Your task to perform on an android device: Go to notification settings Image 0: 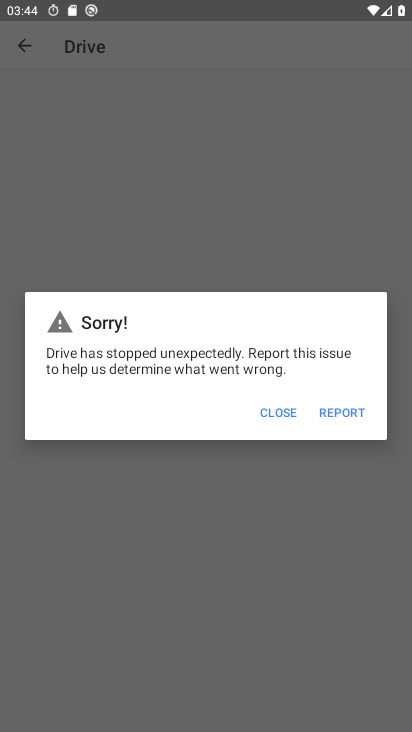
Step 0: drag from (358, 253) to (358, 174)
Your task to perform on an android device: Go to notification settings Image 1: 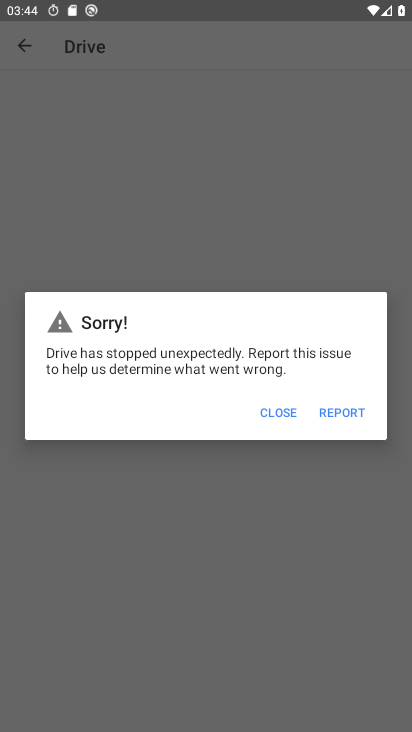
Step 1: press home button
Your task to perform on an android device: Go to notification settings Image 2: 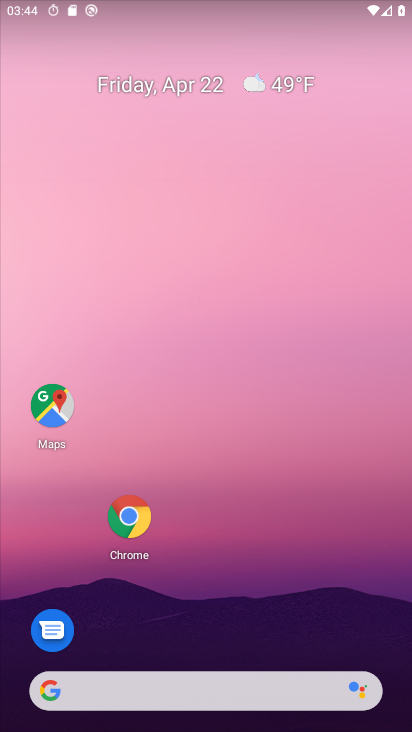
Step 2: drag from (355, 311) to (352, 198)
Your task to perform on an android device: Go to notification settings Image 3: 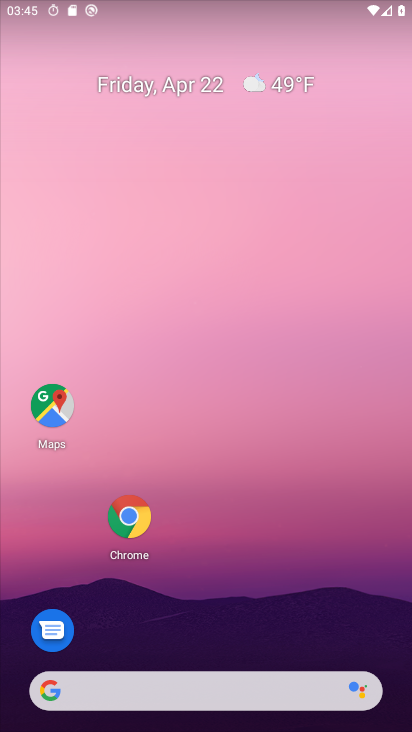
Step 3: click (368, 314)
Your task to perform on an android device: Go to notification settings Image 4: 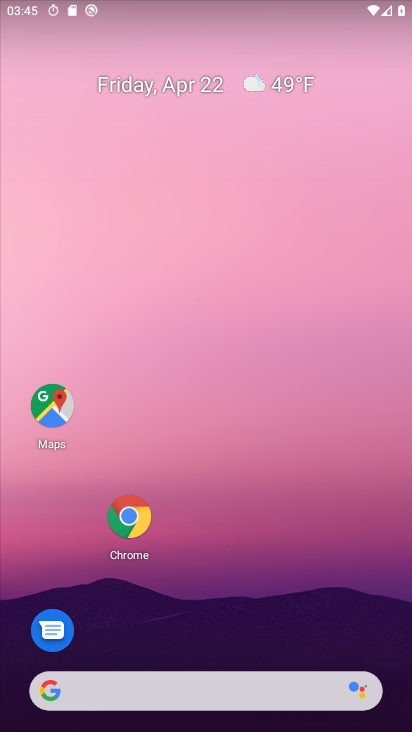
Step 4: drag from (372, 303) to (365, 155)
Your task to perform on an android device: Go to notification settings Image 5: 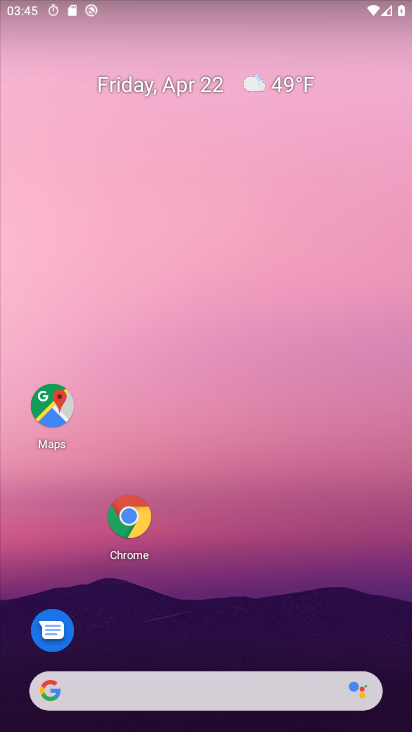
Step 5: drag from (375, 608) to (373, 195)
Your task to perform on an android device: Go to notification settings Image 6: 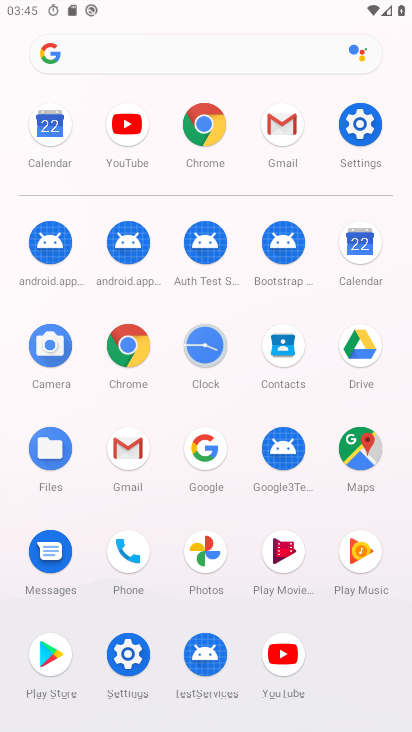
Step 6: click (349, 123)
Your task to perform on an android device: Go to notification settings Image 7: 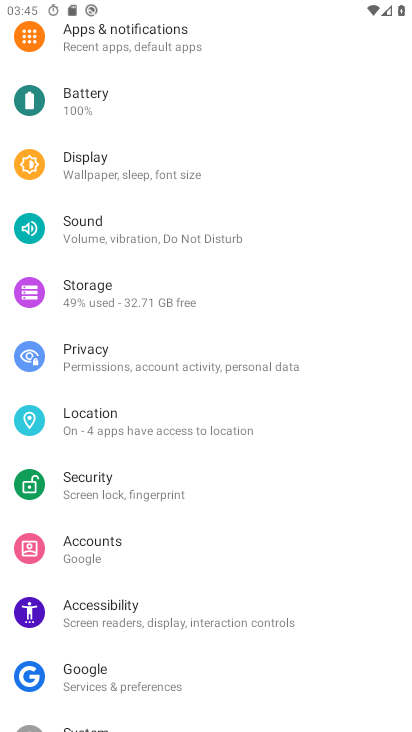
Step 7: click (114, 41)
Your task to perform on an android device: Go to notification settings Image 8: 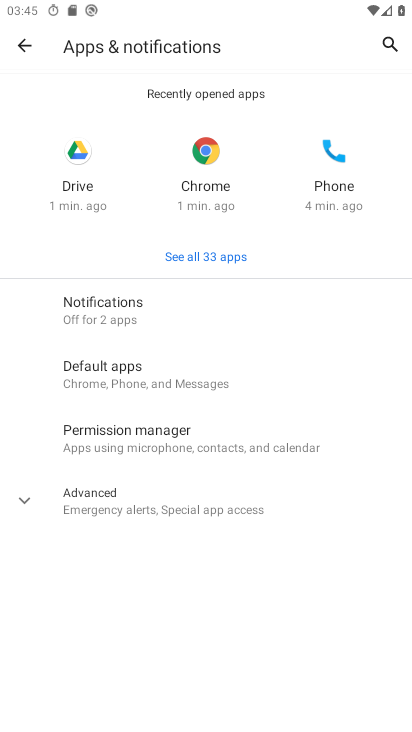
Step 8: click (106, 308)
Your task to perform on an android device: Go to notification settings Image 9: 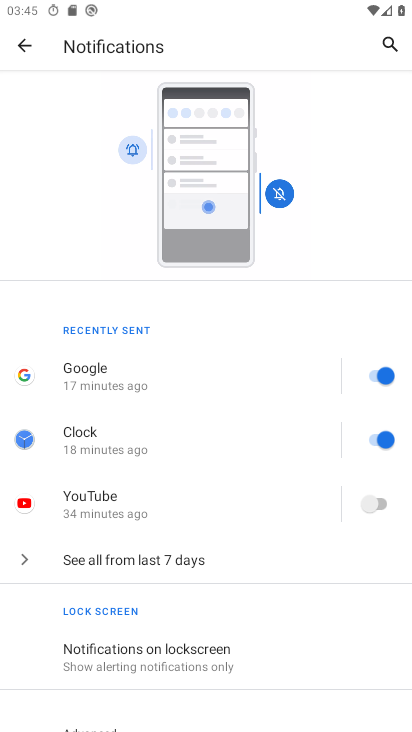
Step 9: drag from (288, 653) to (289, 314)
Your task to perform on an android device: Go to notification settings Image 10: 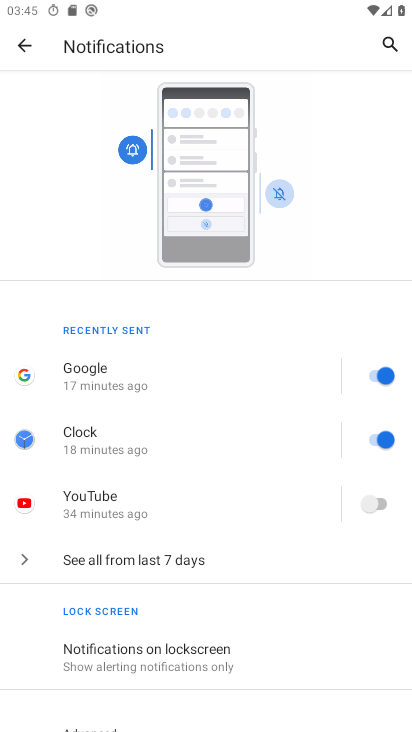
Step 10: drag from (277, 401) to (279, 306)
Your task to perform on an android device: Go to notification settings Image 11: 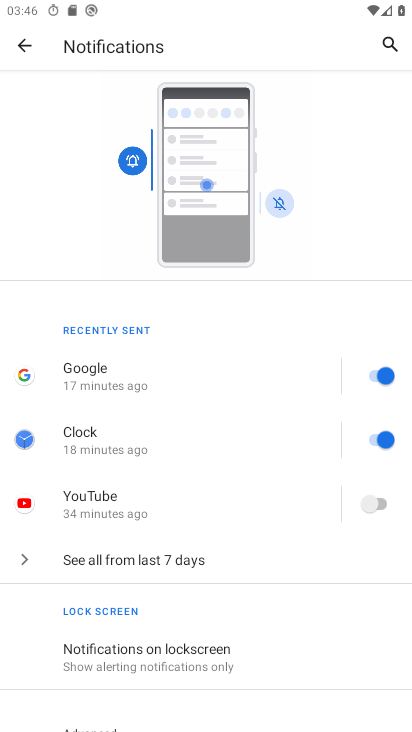
Step 11: drag from (284, 436) to (287, 394)
Your task to perform on an android device: Go to notification settings Image 12: 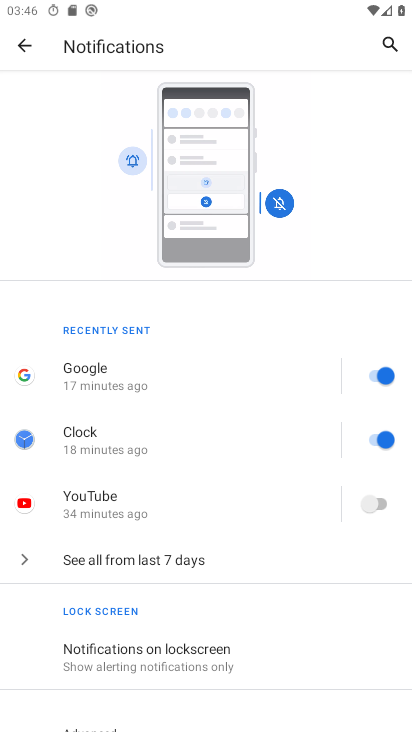
Step 12: drag from (261, 660) to (278, 454)
Your task to perform on an android device: Go to notification settings Image 13: 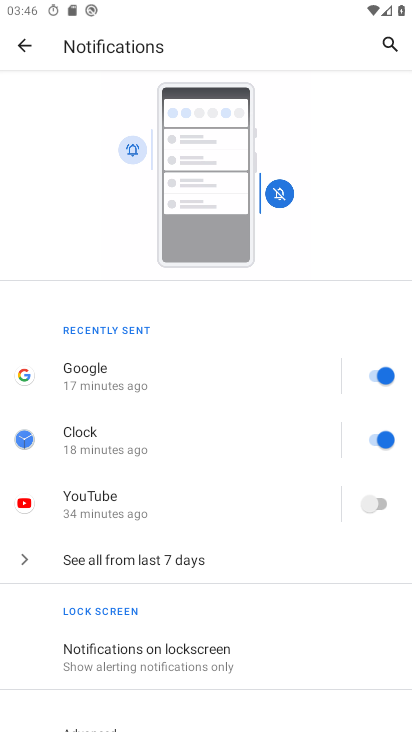
Step 13: click (313, 302)
Your task to perform on an android device: Go to notification settings Image 14: 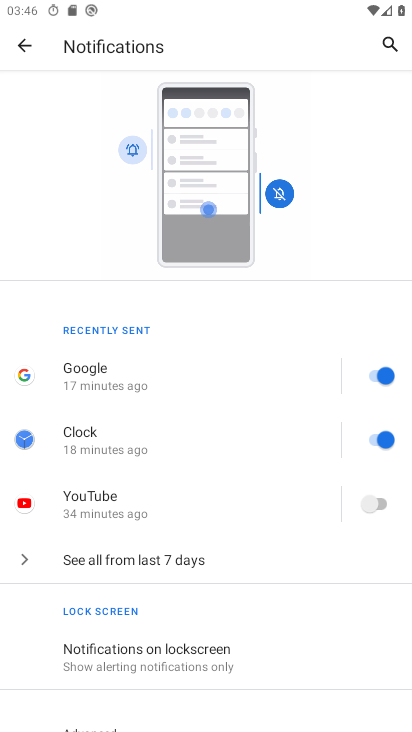
Step 14: click (308, 318)
Your task to perform on an android device: Go to notification settings Image 15: 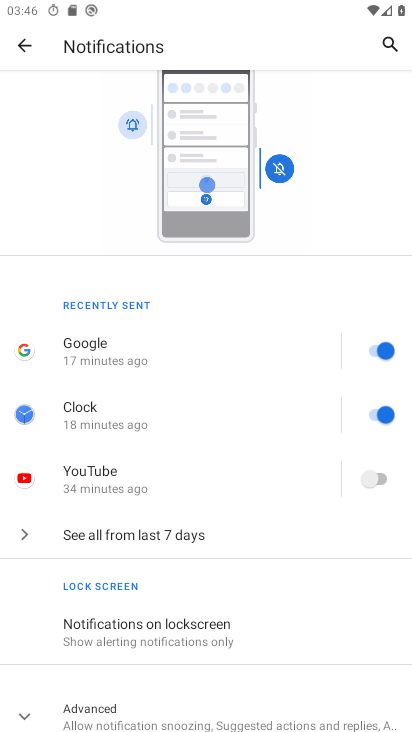
Step 15: click (109, 709)
Your task to perform on an android device: Go to notification settings Image 16: 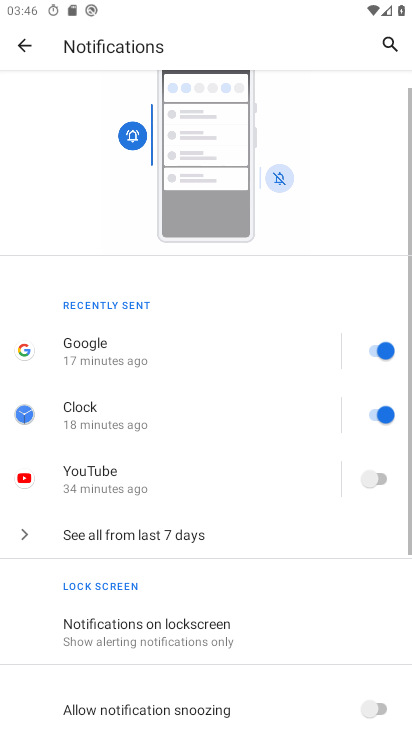
Step 16: task complete